Your task to perform on an android device: create a new album in the google photos Image 0: 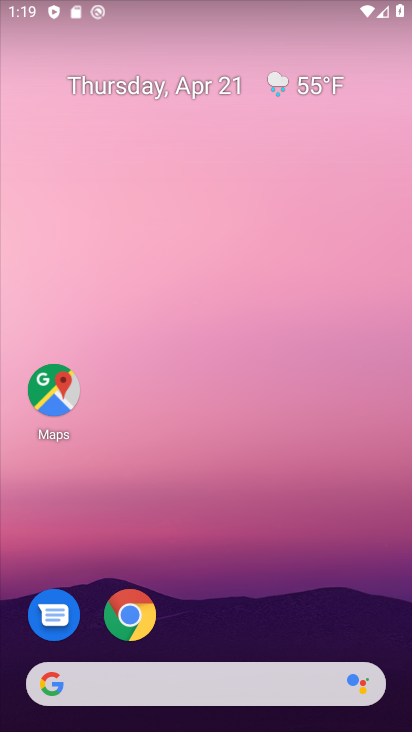
Step 0: drag from (211, 468) to (234, 220)
Your task to perform on an android device: create a new album in the google photos Image 1: 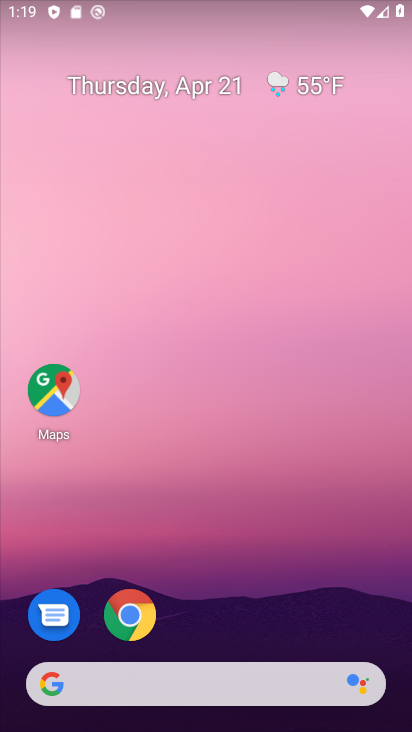
Step 1: drag from (245, 630) to (245, 195)
Your task to perform on an android device: create a new album in the google photos Image 2: 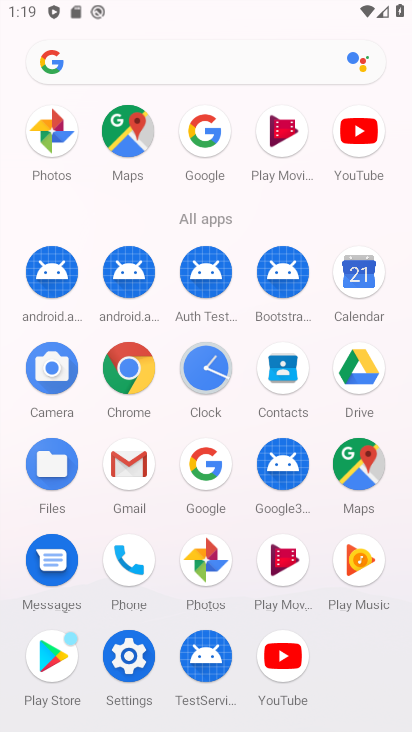
Step 2: click (51, 134)
Your task to perform on an android device: create a new album in the google photos Image 3: 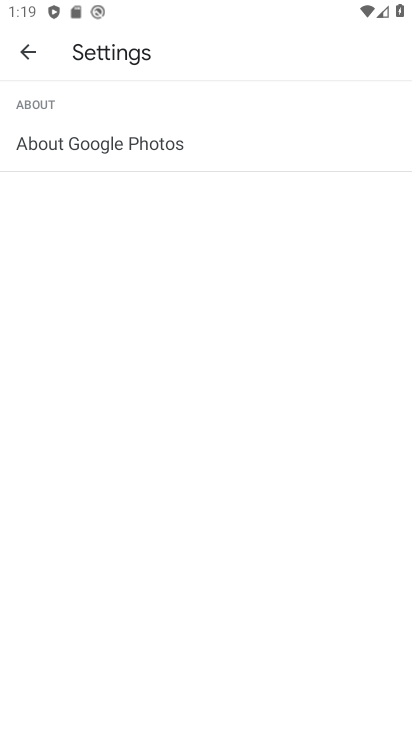
Step 3: press home button
Your task to perform on an android device: create a new album in the google photos Image 4: 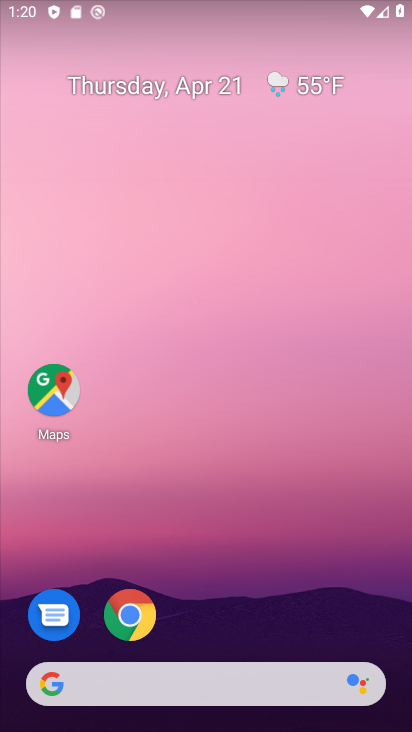
Step 4: drag from (227, 651) to (230, 253)
Your task to perform on an android device: create a new album in the google photos Image 5: 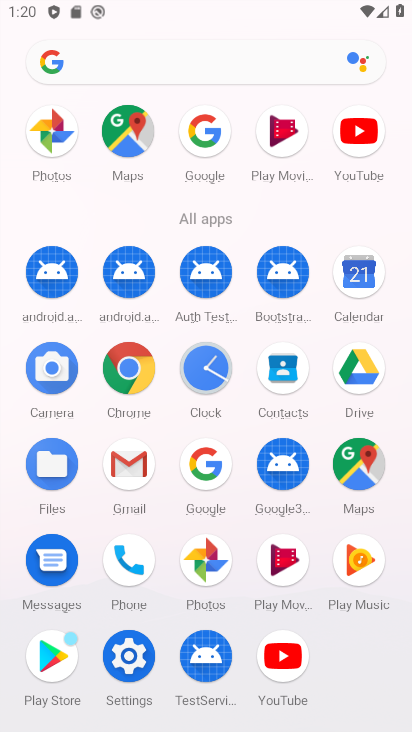
Step 5: click (199, 565)
Your task to perform on an android device: create a new album in the google photos Image 6: 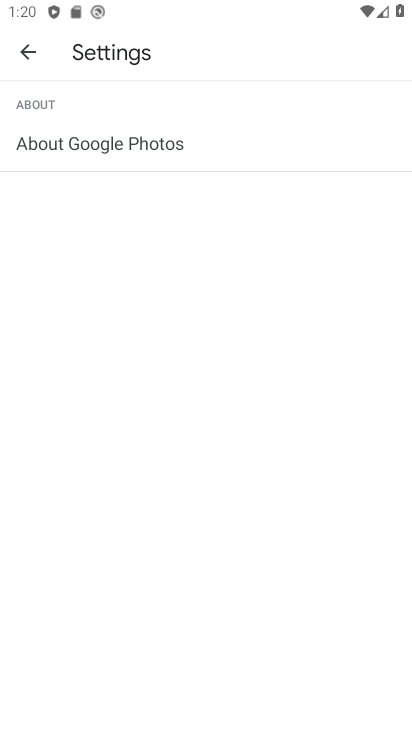
Step 6: click (22, 49)
Your task to perform on an android device: create a new album in the google photos Image 7: 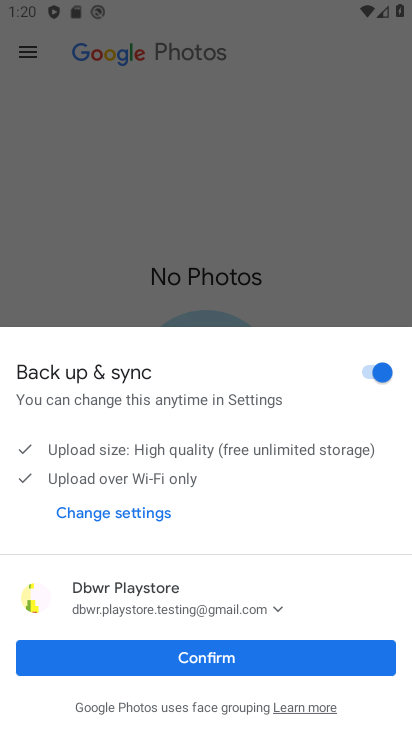
Step 7: click (172, 658)
Your task to perform on an android device: create a new album in the google photos Image 8: 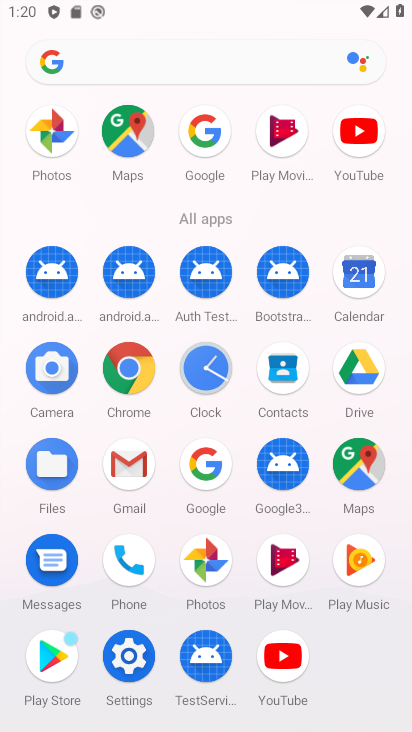
Step 8: click (195, 557)
Your task to perform on an android device: create a new album in the google photos Image 9: 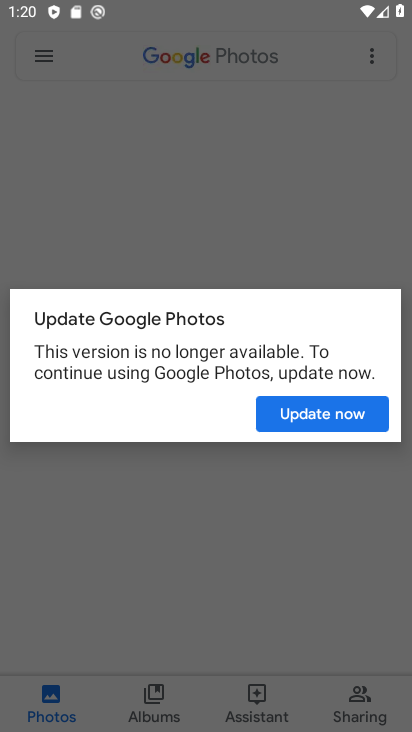
Step 9: click (290, 412)
Your task to perform on an android device: create a new album in the google photos Image 10: 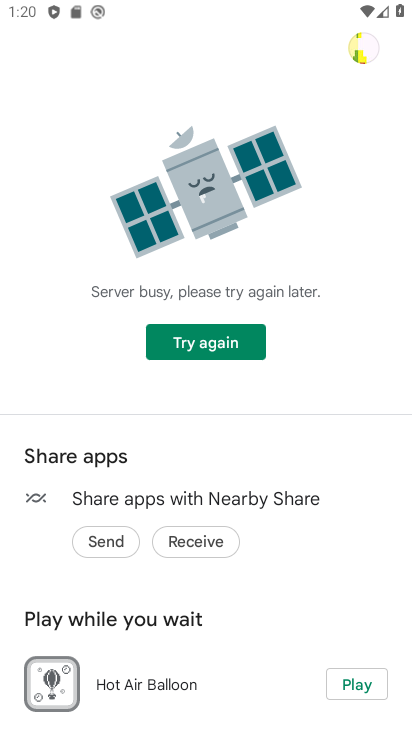
Step 10: task complete